Your task to perform on an android device: Open Google Chrome and open the bookmarks view Image 0: 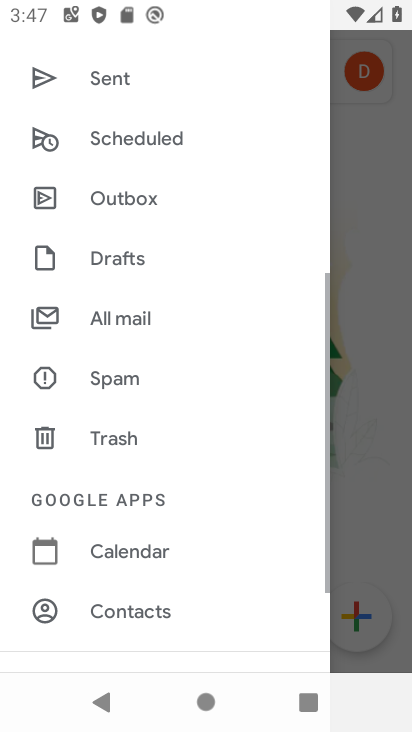
Step 0: press home button
Your task to perform on an android device: Open Google Chrome and open the bookmarks view Image 1: 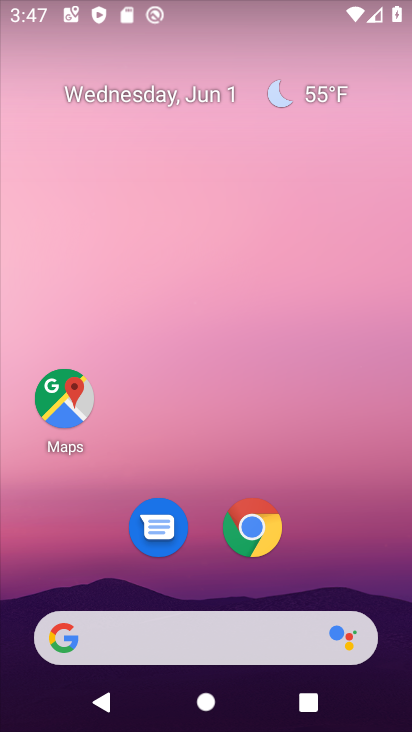
Step 1: click (255, 509)
Your task to perform on an android device: Open Google Chrome and open the bookmarks view Image 2: 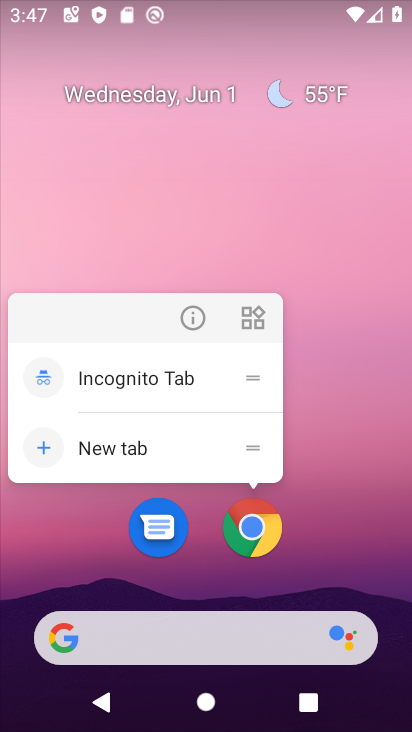
Step 2: click (255, 509)
Your task to perform on an android device: Open Google Chrome and open the bookmarks view Image 3: 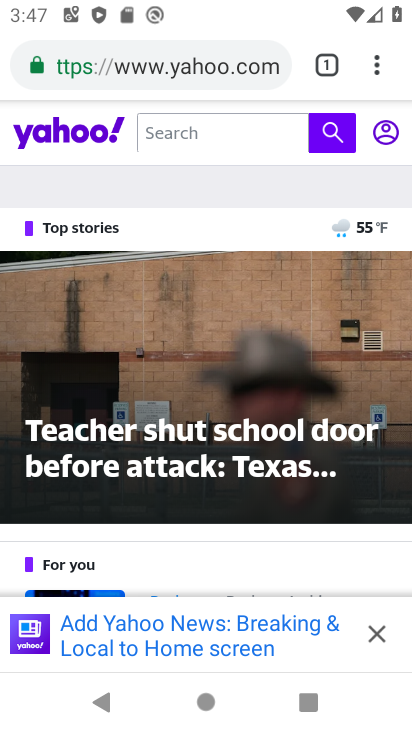
Step 3: task complete